Your task to perform on an android device: open device folders in google photos Image 0: 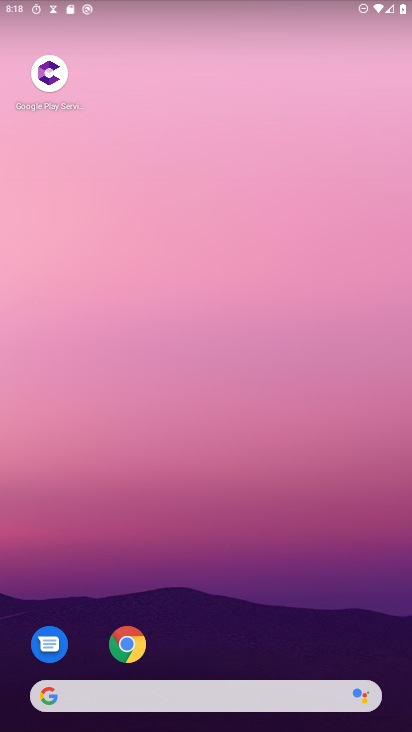
Step 0: drag from (202, 691) to (212, 125)
Your task to perform on an android device: open device folders in google photos Image 1: 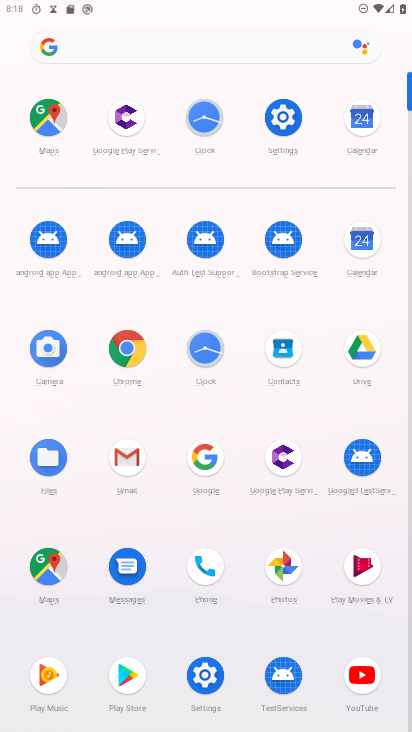
Step 1: click (285, 563)
Your task to perform on an android device: open device folders in google photos Image 2: 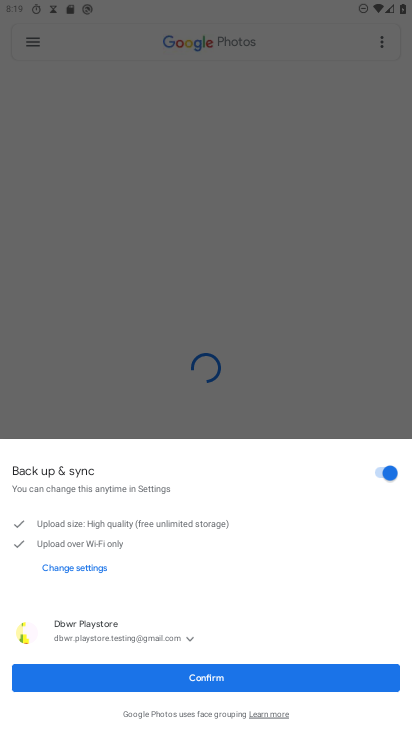
Step 2: click (204, 684)
Your task to perform on an android device: open device folders in google photos Image 3: 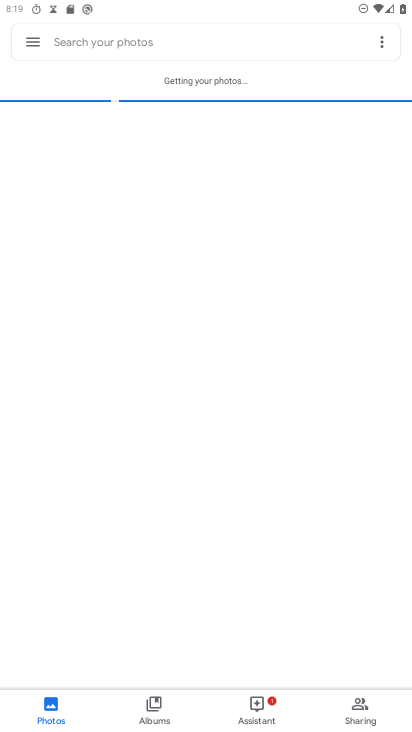
Step 3: click (159, 702)
Your task to perform on an android device: open device folders in google photos Image 4: 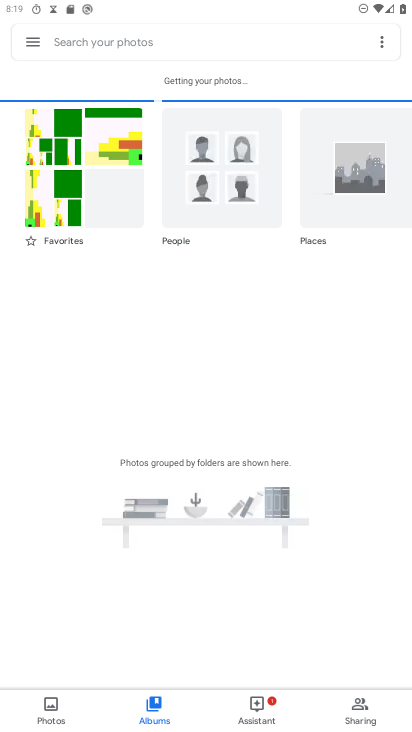
Step 4: task complete